Your task to perform on an android device: Turn on the flashlight Image 0: 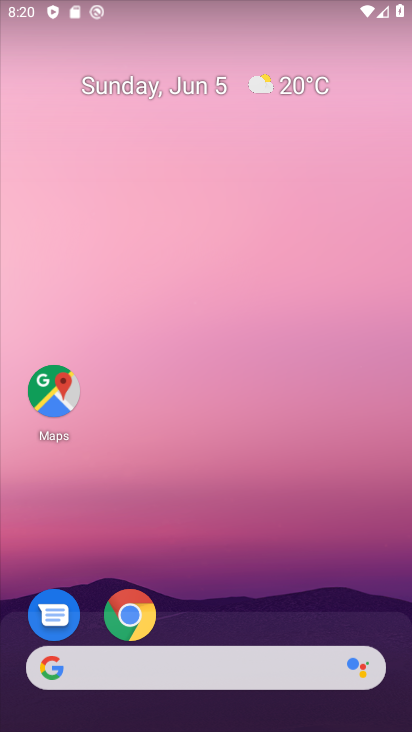
Step 0: drag from (192, 9) to (239, 500)
Your task to perform on an android device: Turn on the flashlight Image 1: 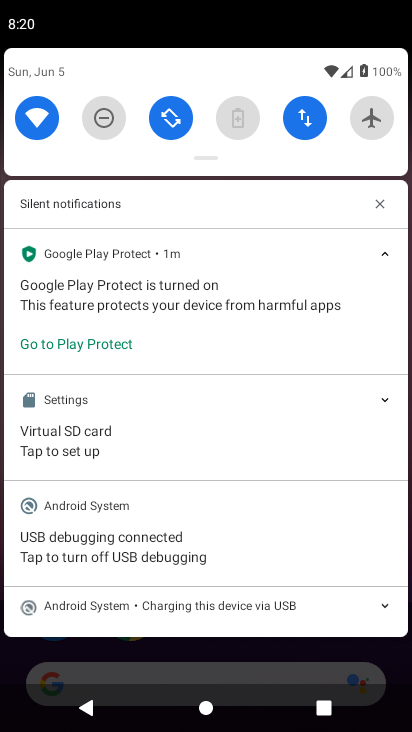
Step 1: drag from (218, 157) to (245, 570)
Your task to perform on an android device: Turn on the flashlight Image 2: 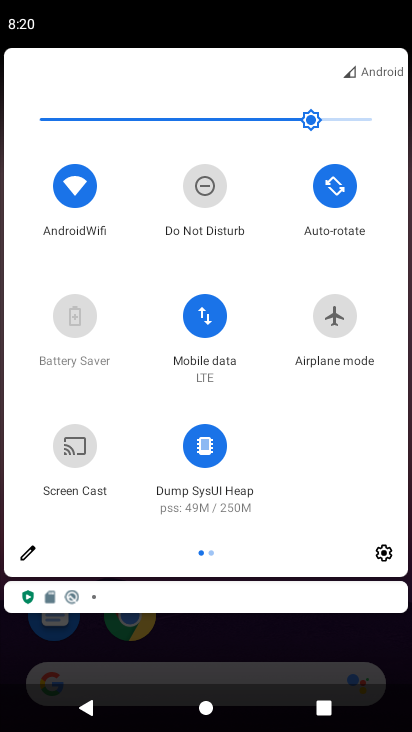
Step 2: click (16, 550)
Your task to perform on an android device: Turn on the flashlight Image 3: 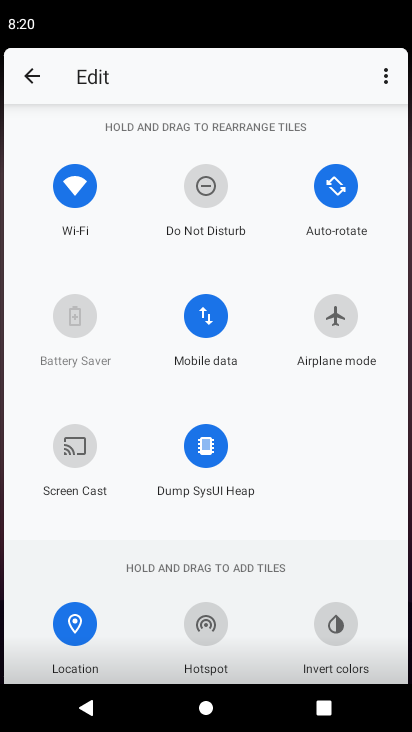
Step 3: task complete